Your task to perform on an android device: Is it going to rain today? Image 0: 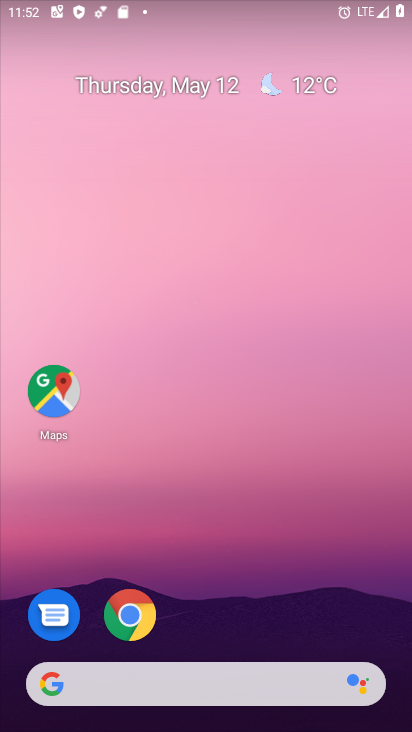
Step 0: click (291, 73)
Your task to perform on an android device: Is it going to rain today? Image 1: 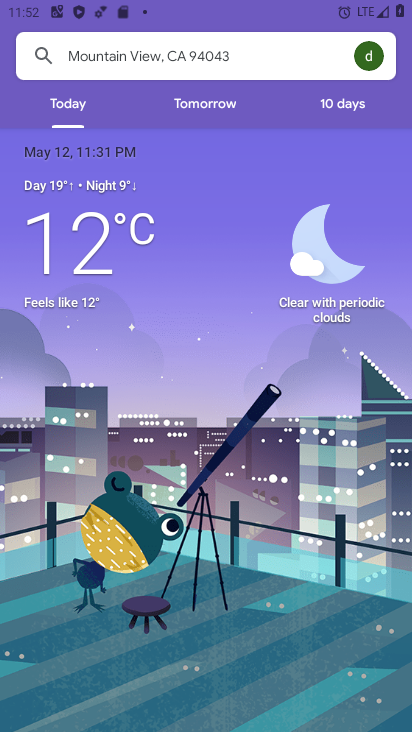
Step 1: task complete